Your task to perform on an android device: Go to Reddit.com Image 0: 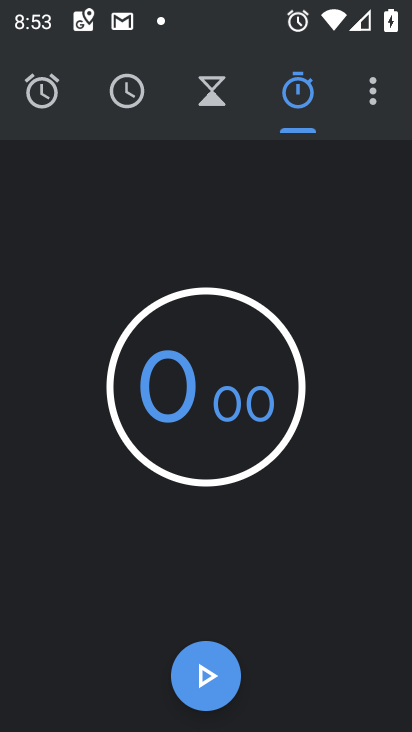
Step 0: press home button
Your task to perform on an android device: Go to Reddit.com Image 1: 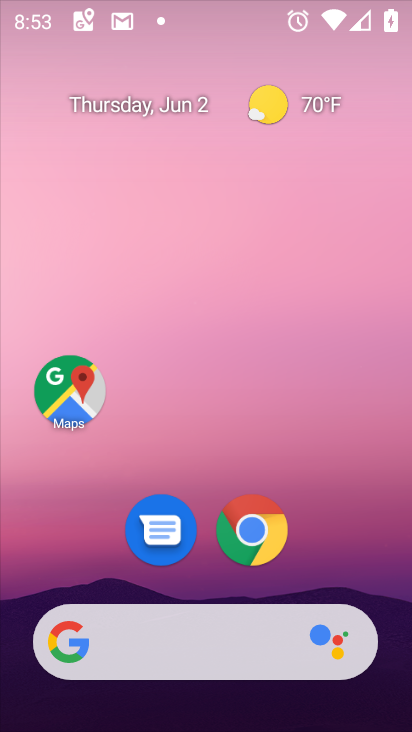
Step 1: click (190, 130)
Your task to perform on an android device: Go to Reddit.com Image 2: 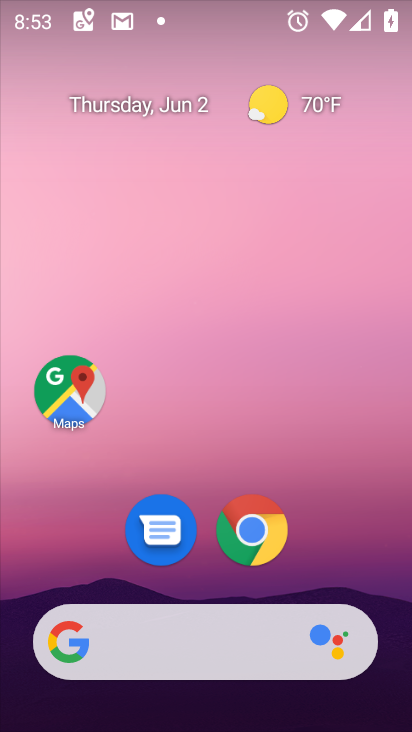
Step 2: drag from (215, 602) to (208, 283)
Your task to perform on an android device: Go to Reddit.com Image 3: 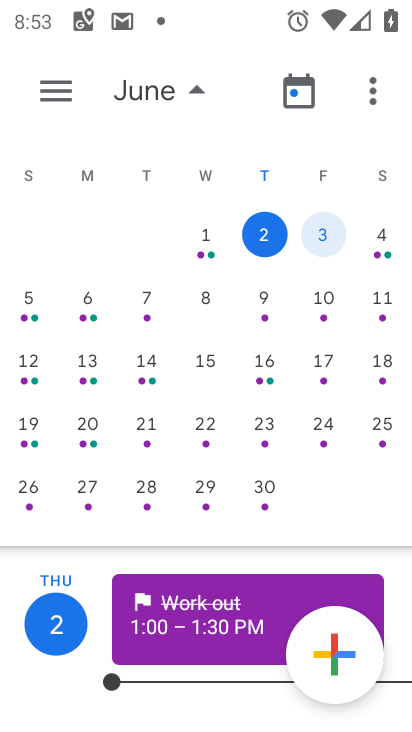
Step 3: press home button
Your task to perform on an android device: Go to Reddit.com Image 4: 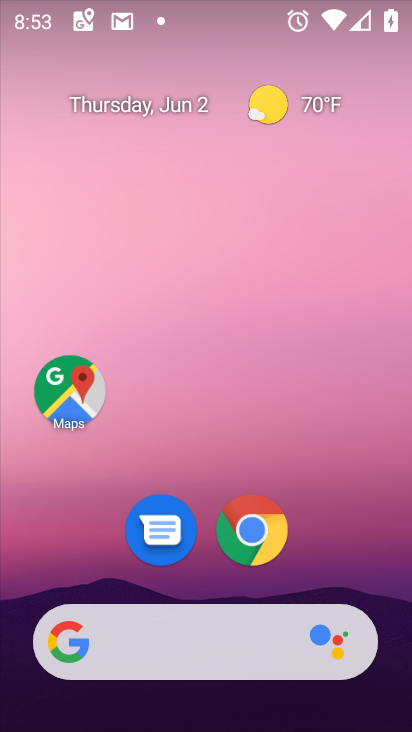
Step 4: drag from (175, 595) to (136, 263)
Your task to perform on an android device: Go to Reddit.com Image 5: 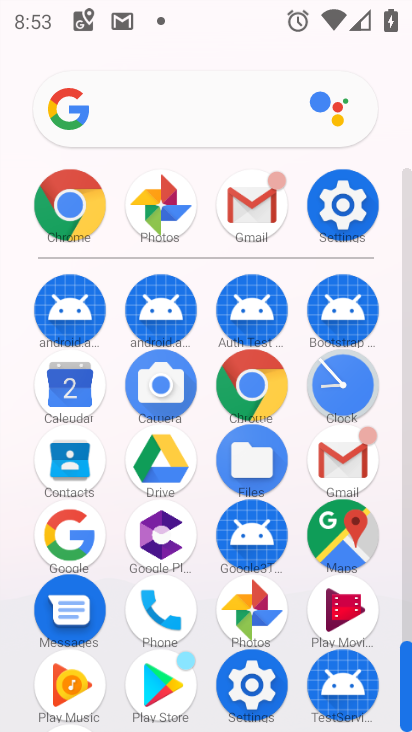
Step 5: click (83, 529)
Your task to perform on an android device: Go to Reddit.com Image 6: 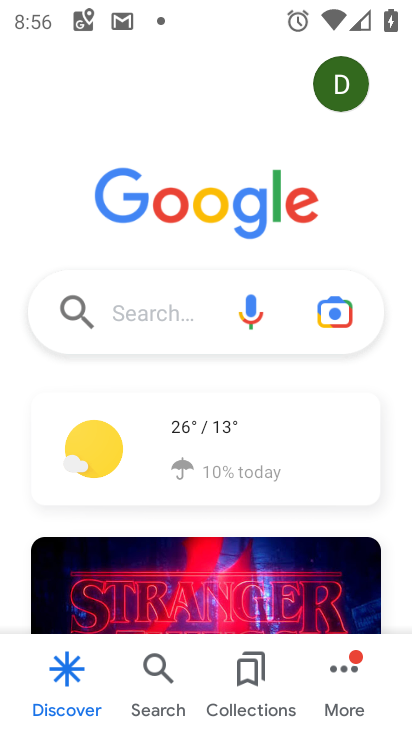
Step 6: click (182, 304)
Your task to perform on an android device: Go to Reddit.com Image 7: 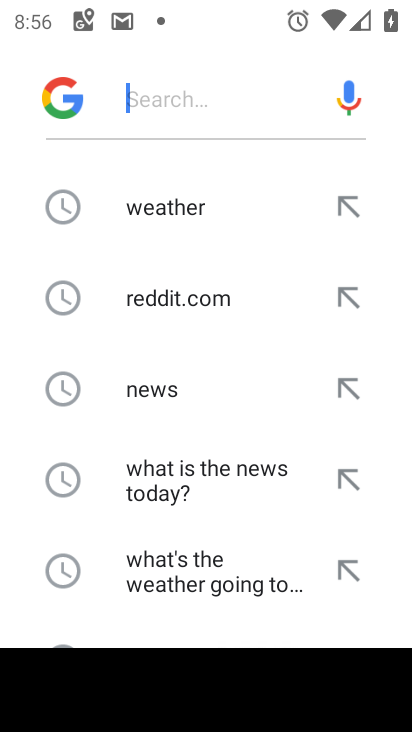
Step 7: click (155, 306)
Your task to perform on an android device: Go to Reddit.com Image 8: 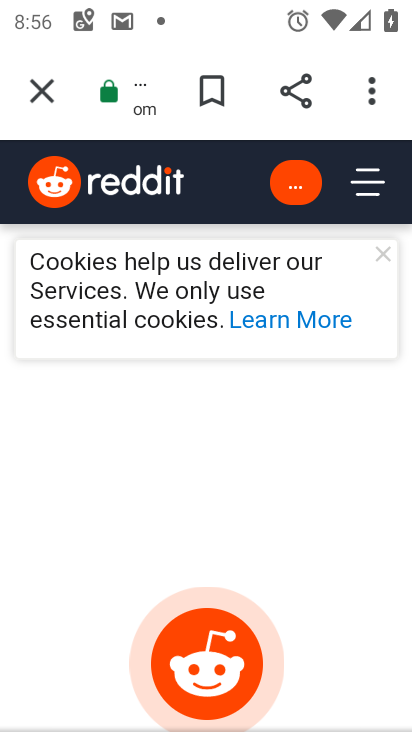
Step 8: task complete